Your task to perform on an android device: Open the web browser Image 0: 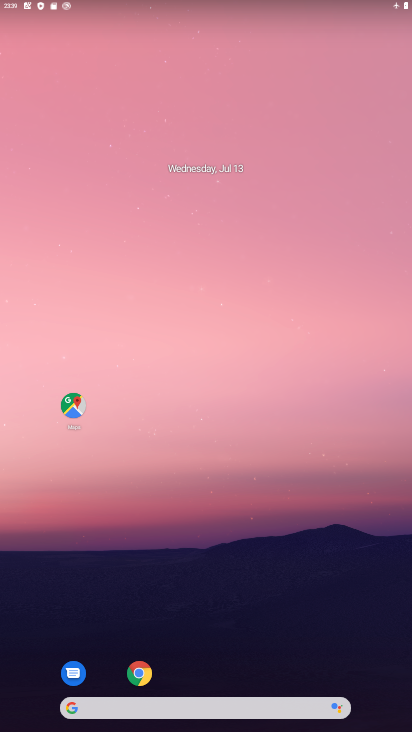
Step 0: drag from (233, 681) to (243, 165)
Your task to perform on an android device: Open the web browser Image 1: 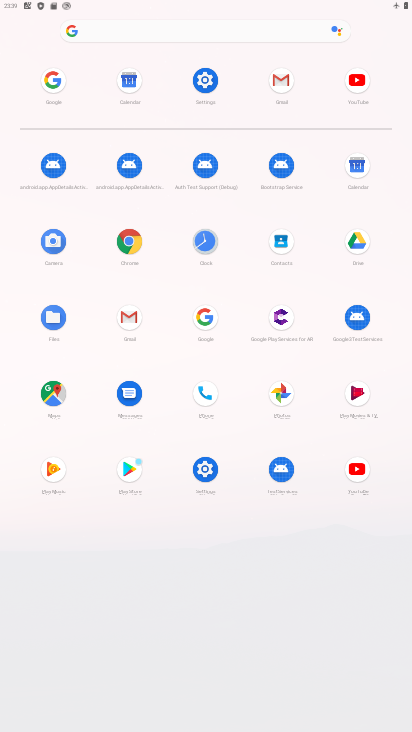
Step 1: click (124, 253)
Your task to perform on an android device: Open the web browser Image 2: 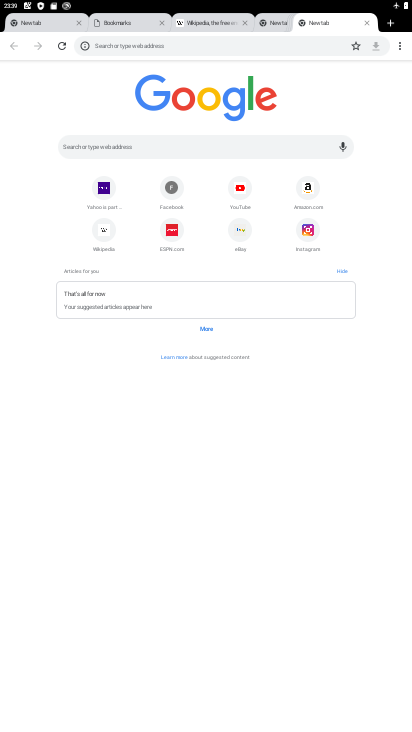
Step 2: task complete